Your task to perform on an android device: Open Amazon Image 0: 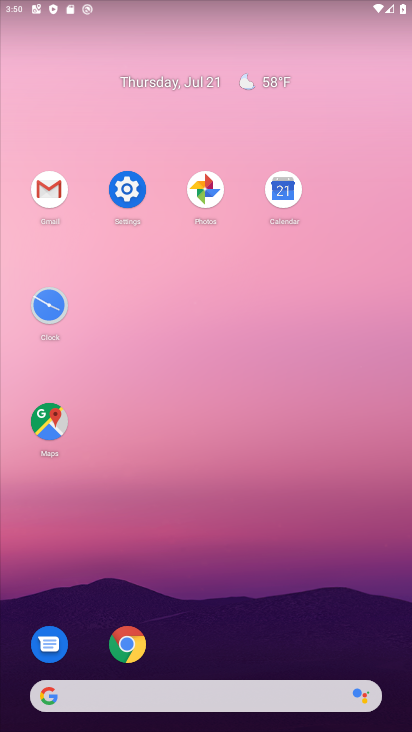
Step 0: click (121, 638)
Your task to perform on an android device: Open Amazon Image 1: 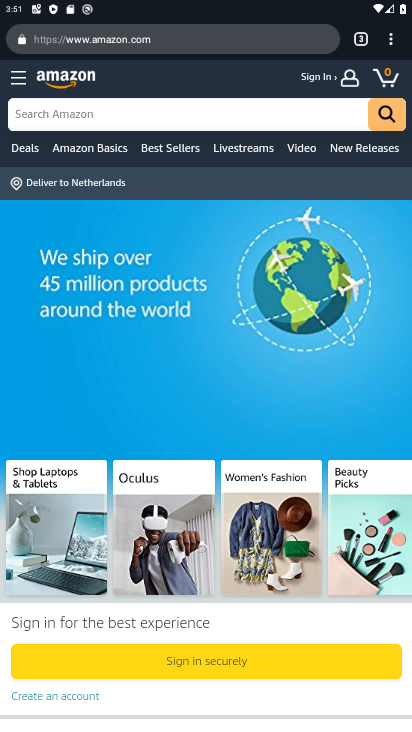
Step 1: click (357, 32)
Your task to perform on an android device: Open Amazon Image 2: 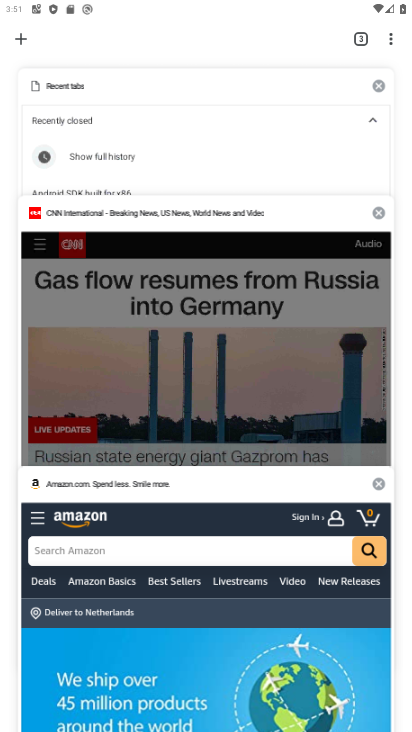
Step 2: click (26, 40)
Your task to perform on an android device: Open Amazon Image 3: 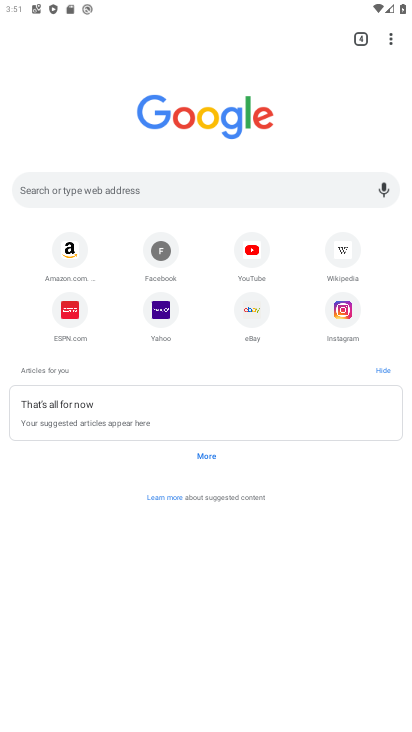
Step 3: click (63, 238)
Your task to perform on an android device: Open Amazon Image 4: 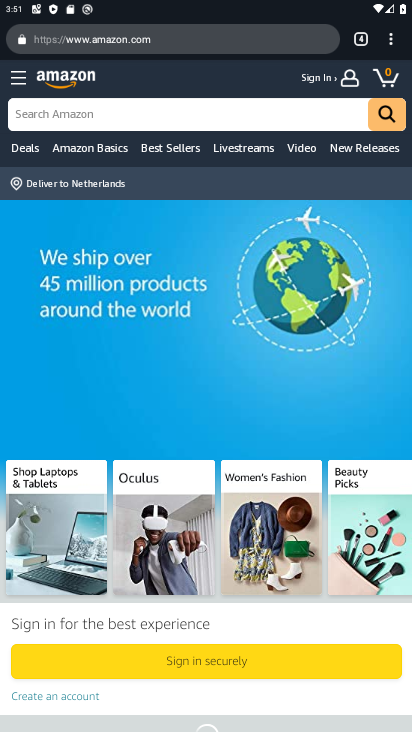
Step 4: task complete